Your task to perform on an android device: Open Google Maps and go to "Timeline" Image 0: 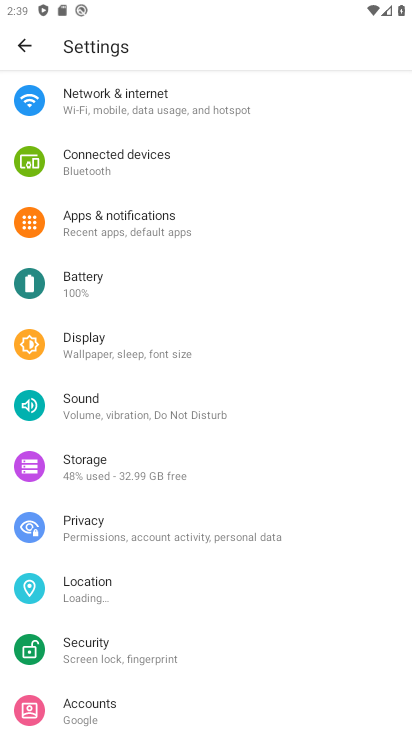
Step 0: press home button
Your task to perform on an android device: Open Google Maps and go to "Timeline" Image 1: 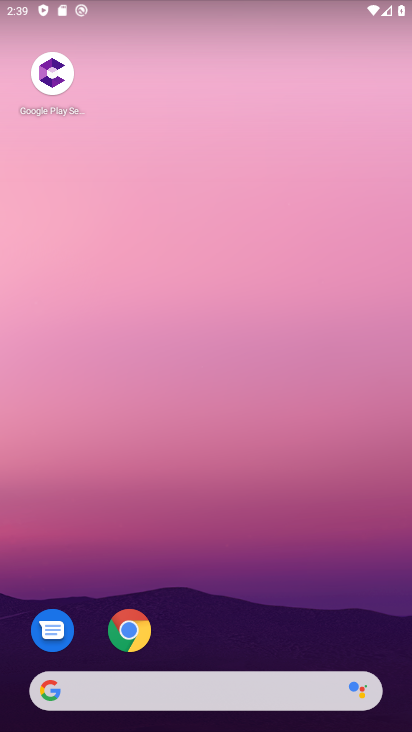
Step 1: drag from (358, 631) to (248, 73)
Your task to perform on an android device: Open Google Maps and go to "Timeline" Image 2: 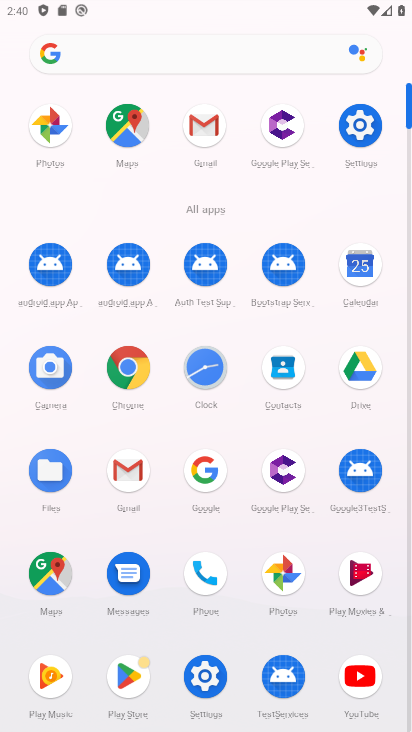
Step 2: click (132, 126)
Your task to perform on an android device: Open Google Maps and go to "Timeline" Image 3: 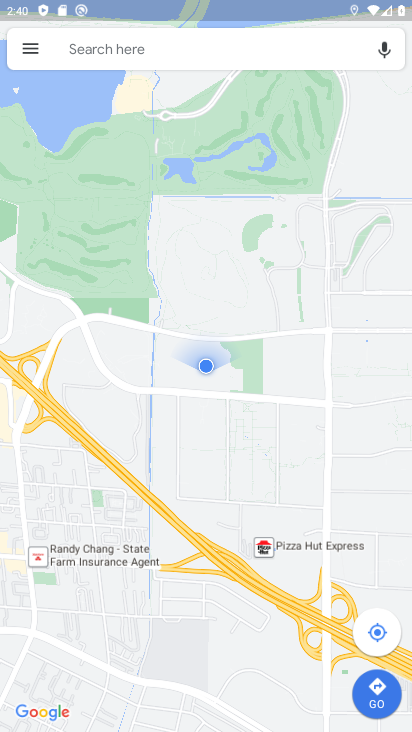
Step 3: click (32, 58)
Your task to perform on an android device: Open Google Maps and go to "Timeline" Image 4: 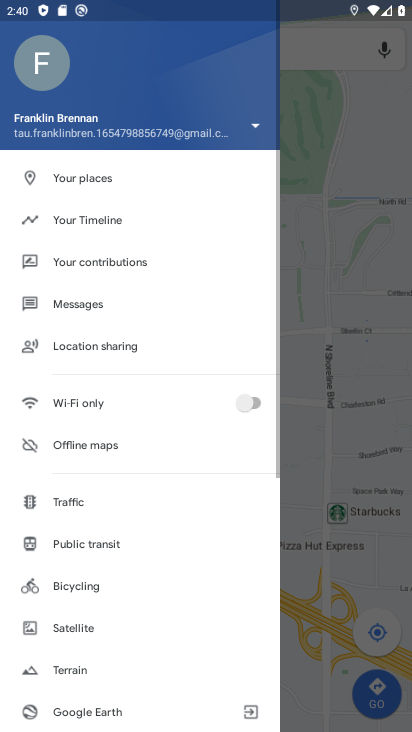
Step 4: click (32, 49)
Your task to perform on an android device: Open Google Maps and go to "Timeline" Image 5: 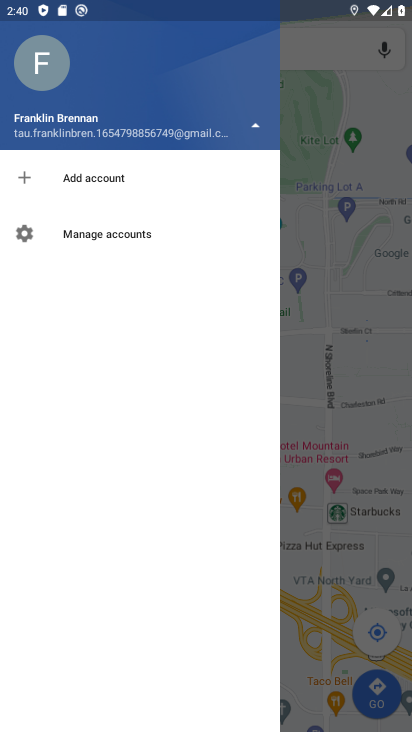
Step 5: click (34, 52)
Your task to perform on an android device: Open Google Maps and go to "Timeline" Image 6: 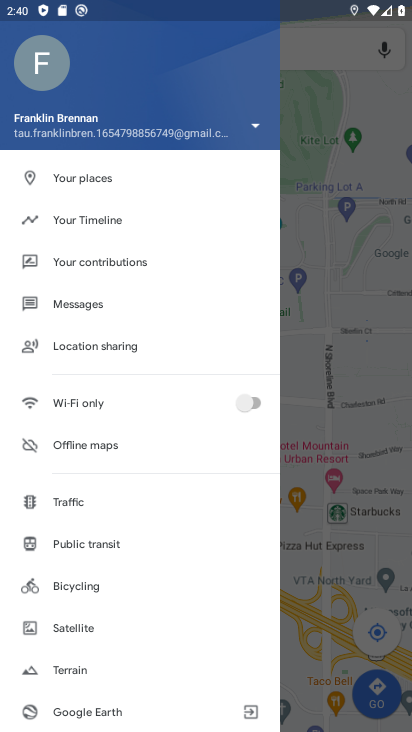
Step 6: click (85, 222)
Your task to perform on an android device: Open Google Maps and go to "Timeline" Image 7: 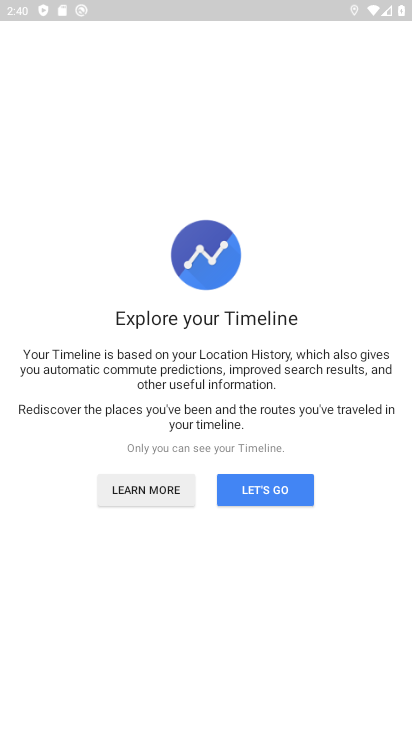
Step 7: click (292, 478)
Your task to perform on an android device: Open Google Maps and go to "Timeline" Image 8: 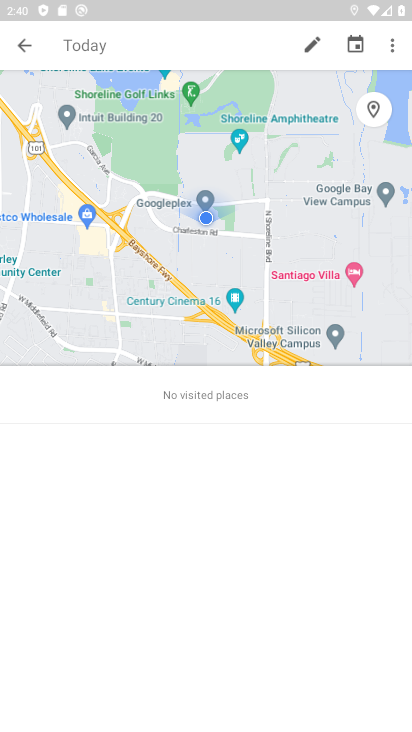
Step 8: task complete